Your task to perform on an android device: add a contact in the contacts app Image 0: 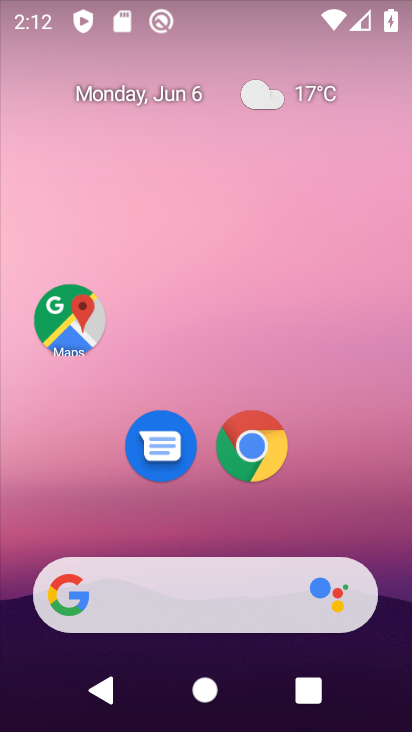
Step 0: drag from (188, 540) to (270, 28)
Your task to perform on an android device: add a contact in the contacts app Image 1: 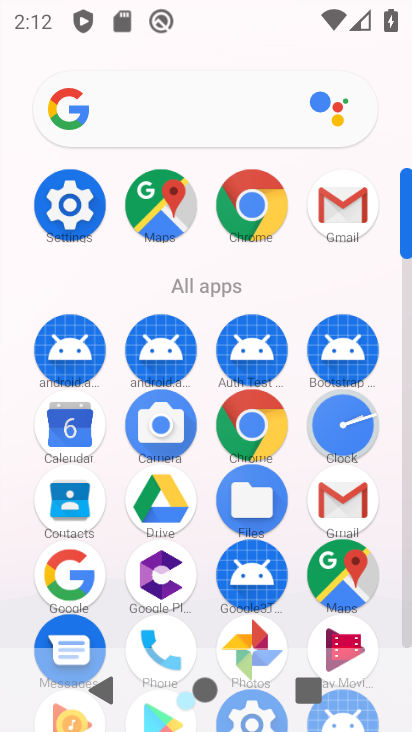
Step 1: click (70, 497)
Your task to perform on an android device: add a contact in the contacts app Image 2: 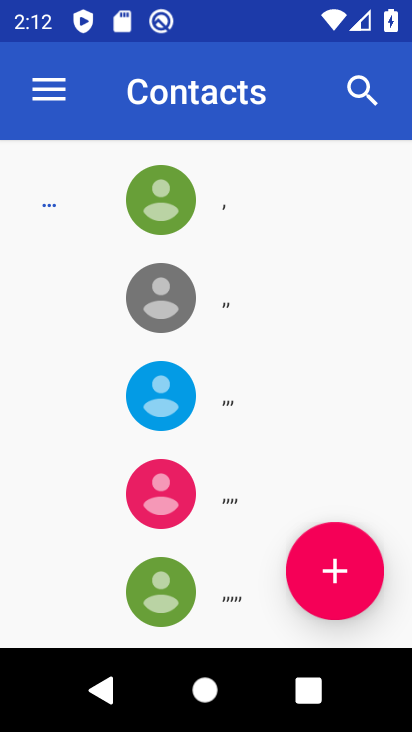
Step 2: click (337, 558)
Your task to perform on an android device: add a contact in the contacts app Image 3: 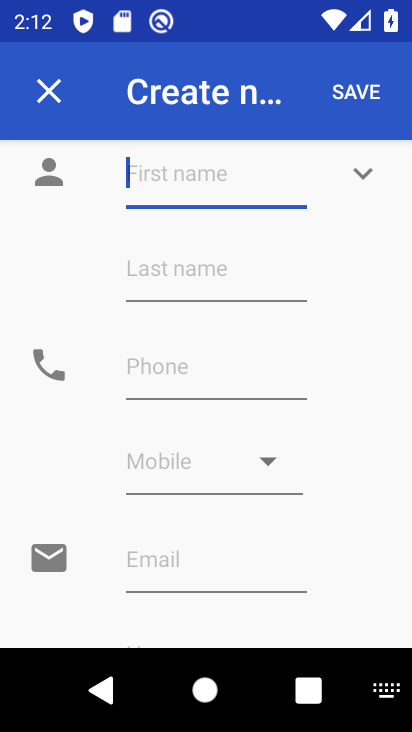
Step 3: type "svv"
Your task to perform on an android device: add a contact in the contacts app Image 4: 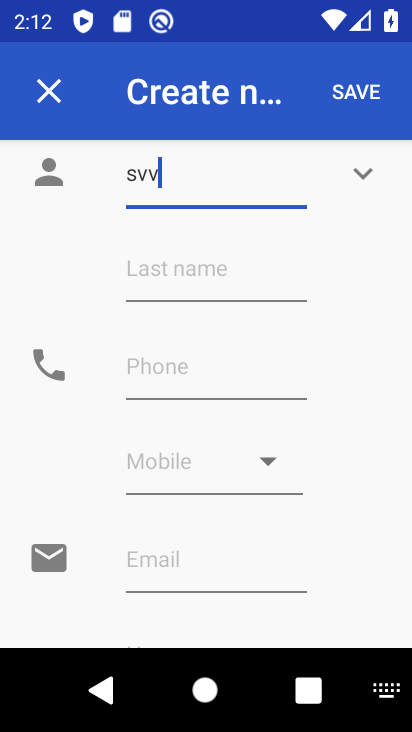
Step 4: click (168, 375)
Your task to perform on an android device: add a contact in the contacts app Image 5: 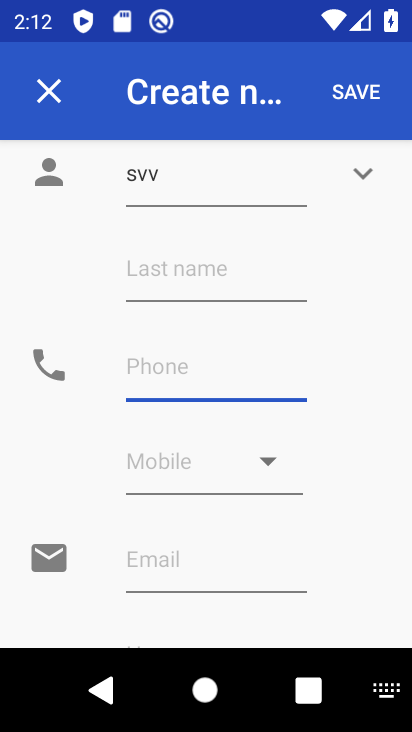
Step 5: type "646464"
Your task to perform on an android device: add a contact in the contacts app Image 6: 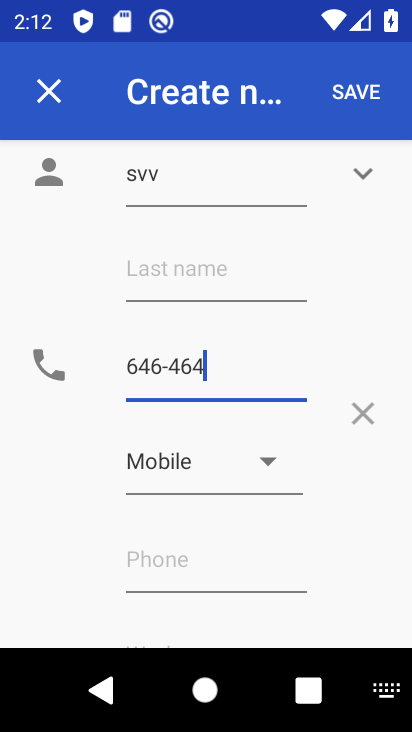
Step 6: click (349, 94)
Your task to perform on an android device: add a contact in the contacts app Image 7: 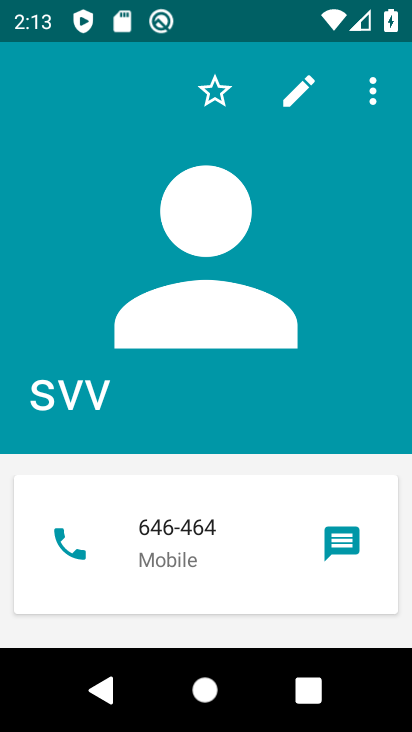
Step 7: task complete